Your task to perform on an android device: Open internet settings Image 0: 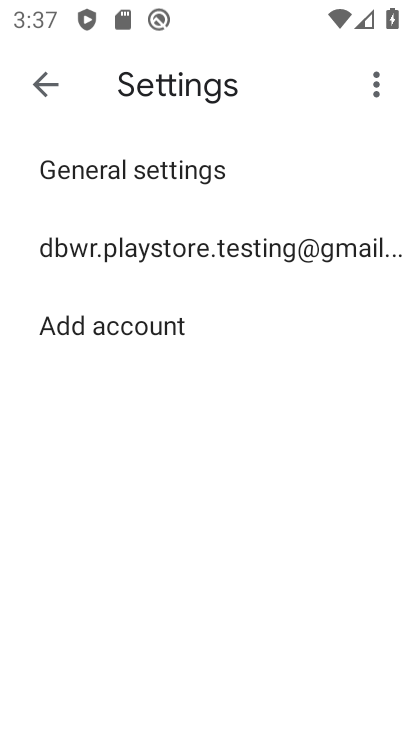
Step 0: press home button
Your task to perform on an android device: Open internet settings Image 1: 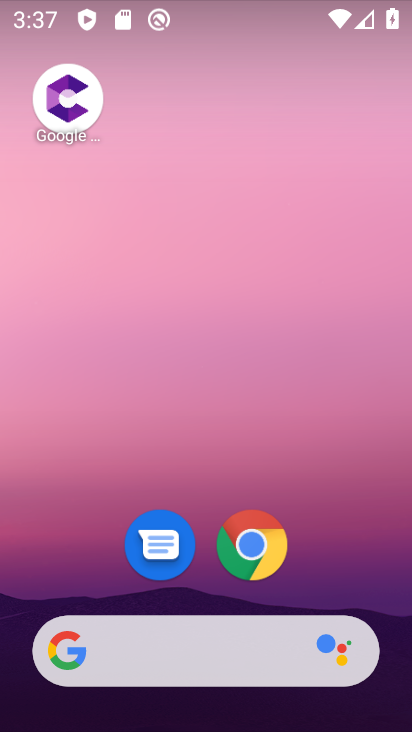
Step 1: drag from (337, 547) to (324, 118)
Your task to perform on an android device: Open internet settings Image 2: 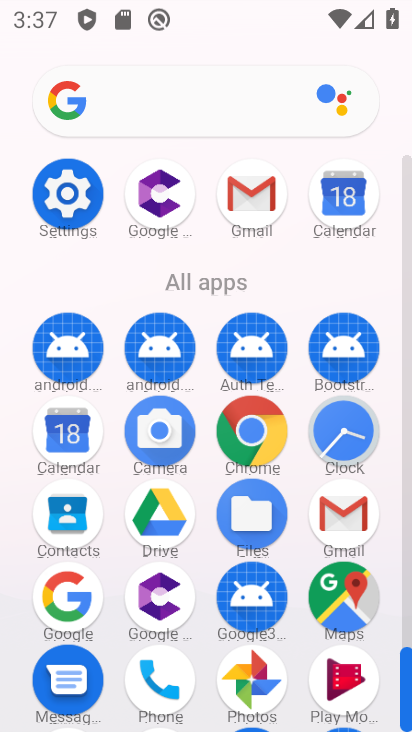
Step 2: click (70, 198)
Your task to perform on an android device: Open internet settings Image 3: 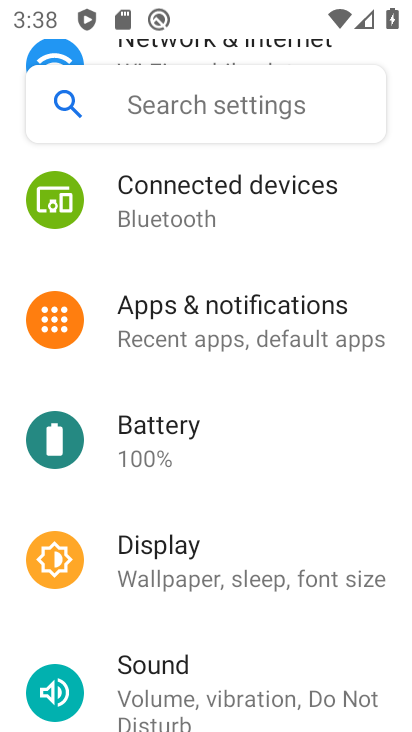
Step 3: drag from (367, 248) to (365, 428)
Your task to perform on an android device: Open internet settings Image 4: 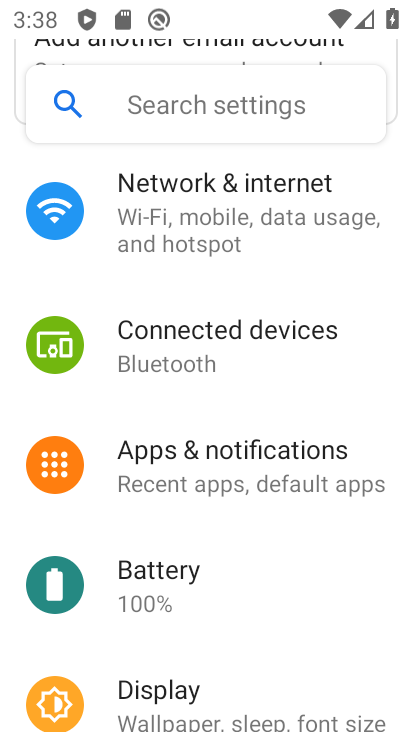
Step 4: click (251, 197)
Your task to perform on an android device: Open internet settings Image 5: 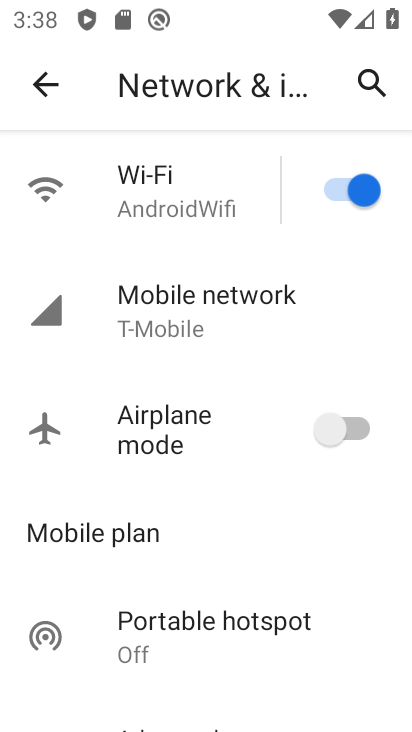
Step 5: task complete